Your task to perform on an android device: Open Google Maps Image 0: 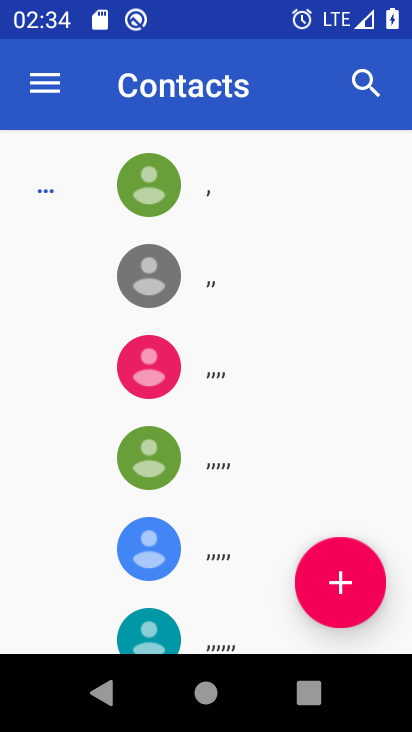
Step 0: press home button
Your task to perform on an android device: Open Google Maps Image 1: 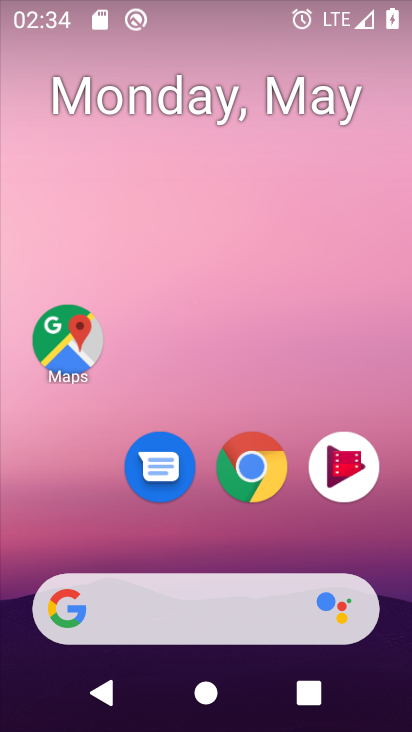
Step 1: drag from (236, 578) to (249, 257)
Your task to perform on an android device: Open Google Maps Image 2: 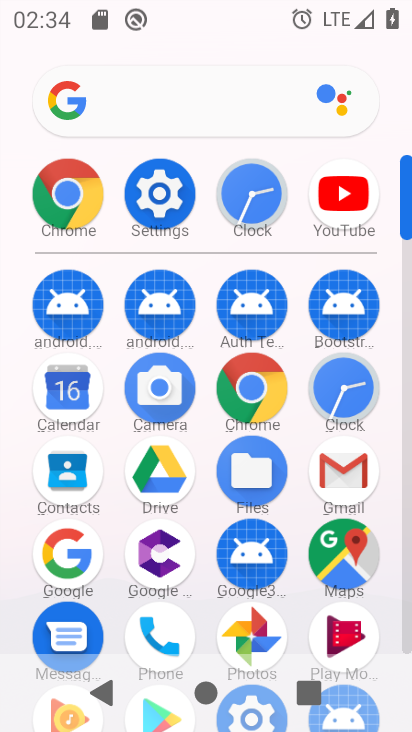
Step 2: click (343, 554)
Your task to perform on an android device: Open Google Maps Image 3: 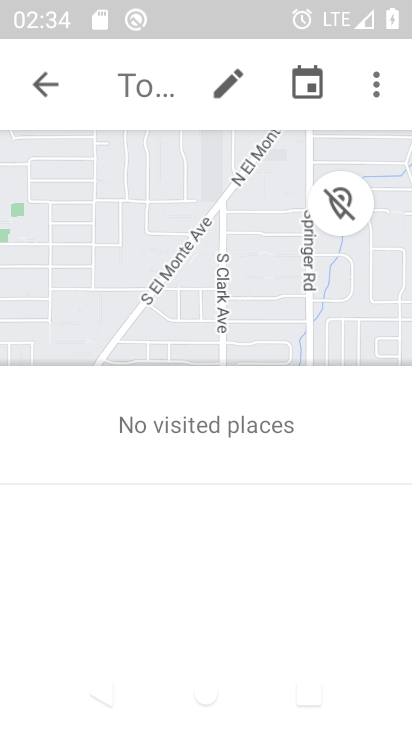
Step 3: task complete